Your task to perform on an android device: Toggle the flashlight Image 0: 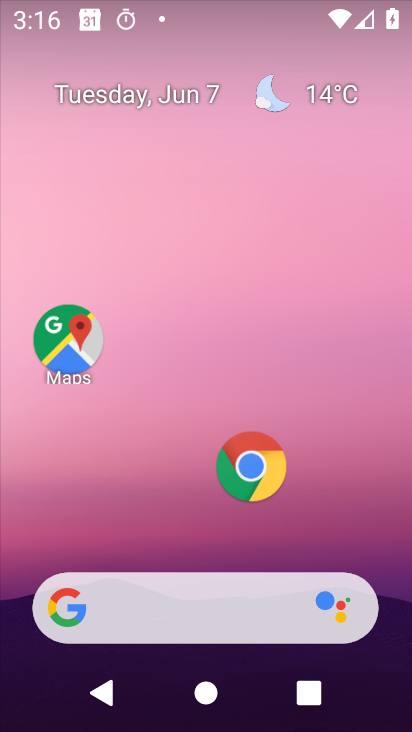
Step 0: task impossible